Your task to perform on an android device: turn on javascript in the chrome app Image 0: 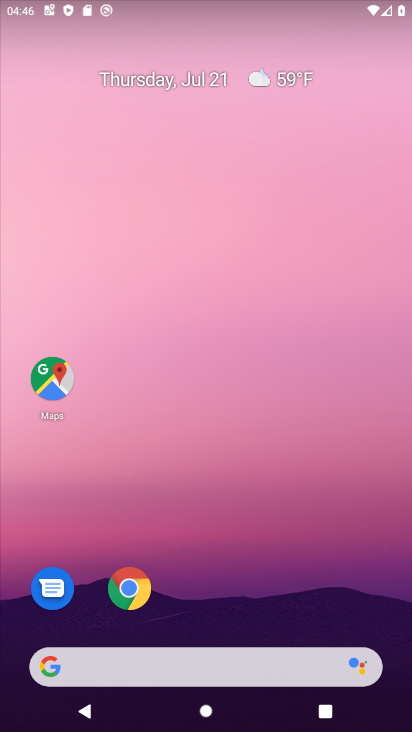
Step 0: drag from (200, 574) to (234, 127)
Your task to perform on an android device: turn on javascript in the chrome app Image 1: 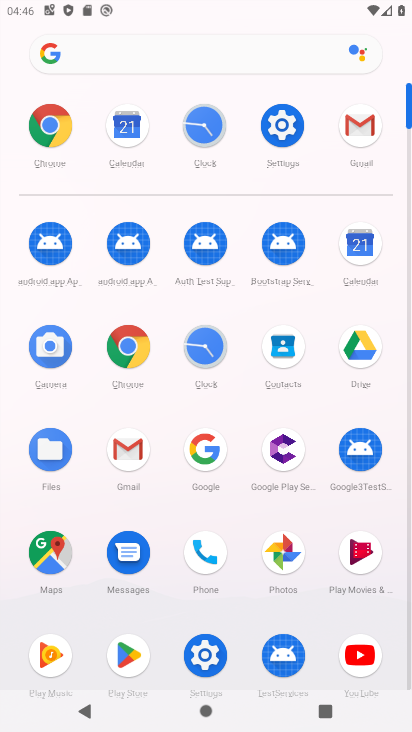
Step 1: click (134, 349)
Your task to perform on an android device: turn on javascript in the chrome app Image 2: 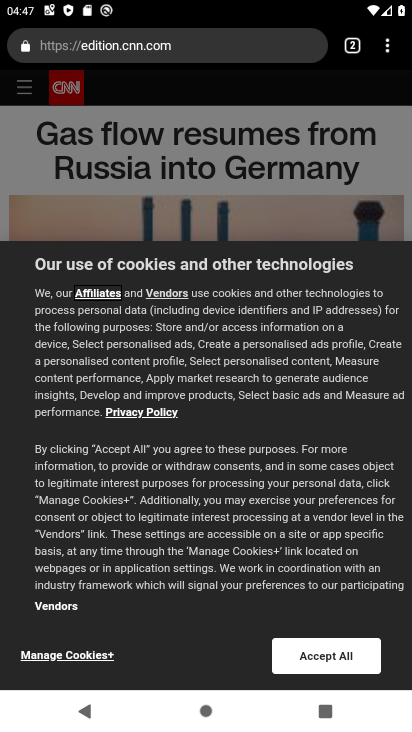
Step 2: click (385, 41)
Your task to perform on an android device: turn on javascript in the chrome app Image 3: 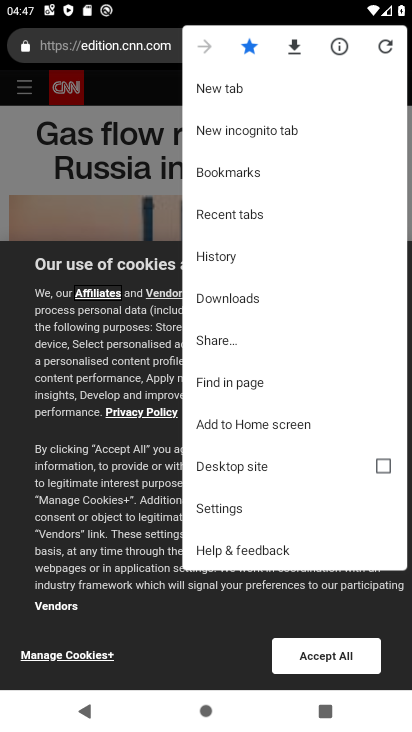
Step 3: click (220, 514)
Your task to perform on an android device: turn on javascript in the chrome app Image 4: 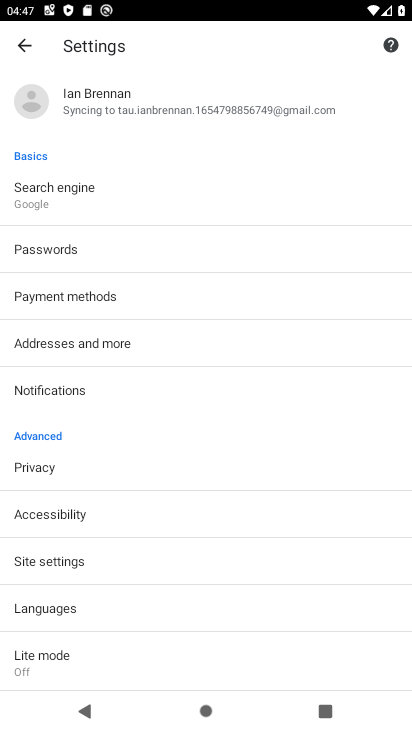
Step 4: click (93, 572)
Your task to perform on an android device: turn on javascript in the chrome app Image 5: 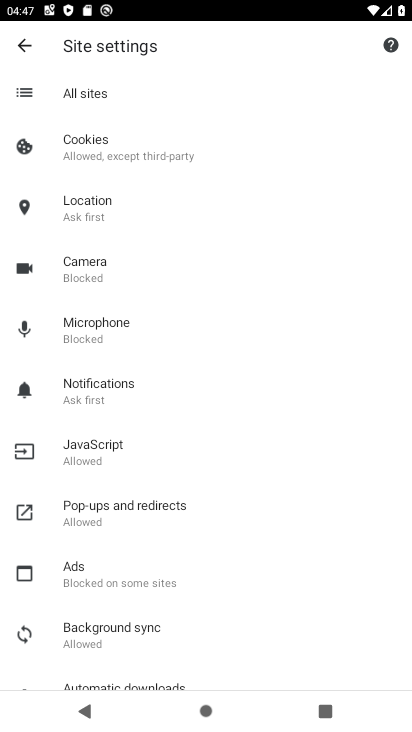
Step 5: click (121, 453)
Your task to perform on an android device: turn on javascript in the chrome app Image 6: 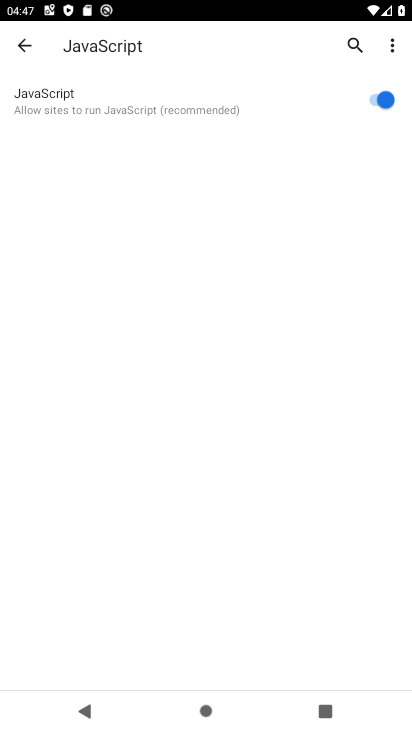
Step 6: task complete